Your task to perform on an android device: turn off smart reply in the gmail app Image 0: 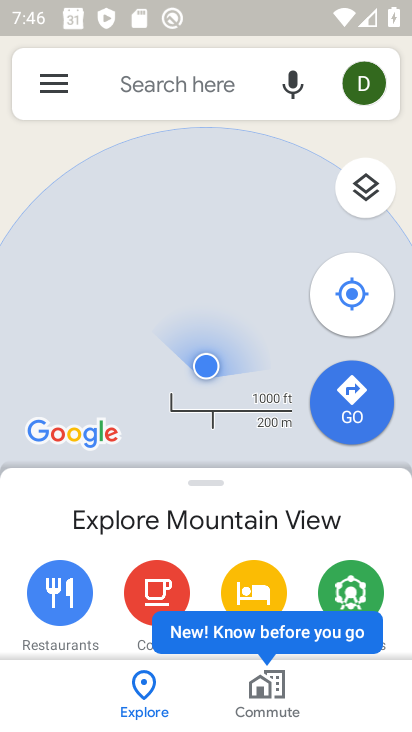
Step 0: press home button
Your task to perform on an android device: turn off smart reply in the gmail app Image 1: 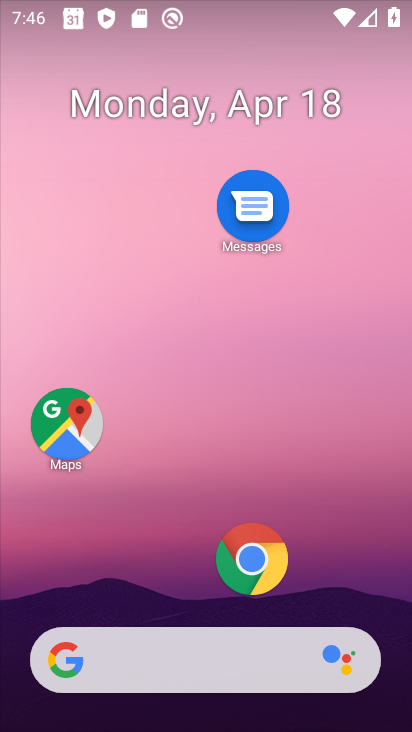
Step 1: drag from (164, 401) to (192, 39)
Your task to perform on an android device: turn off smart reply in the gmail app Image 2: 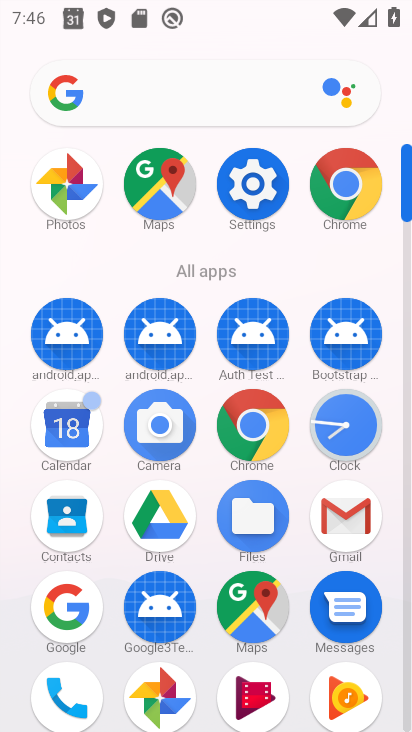
Step 2: click (346, 522)
Your task to perform on an android device: turn off smart reply in the gmail app Image 3: 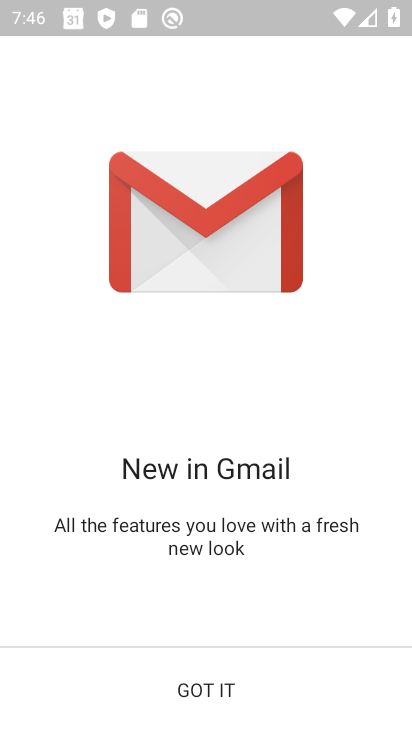
Step 3: click (210, 690)
Your task to perform on an android device: turn off smart reply in the gmail app Image 4: 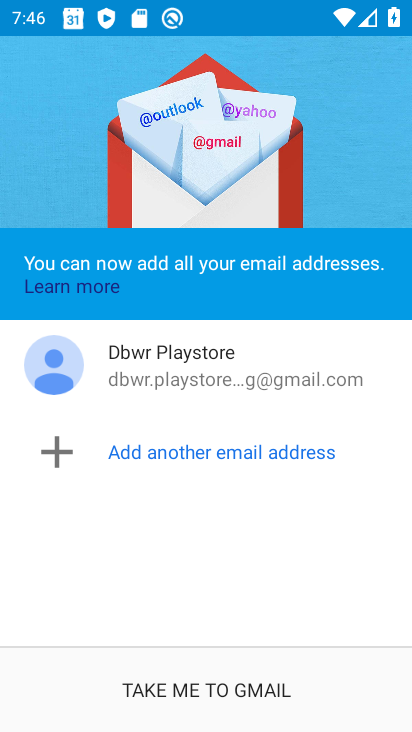
Step 4: click (210, 690)
Your task to perform on an android device: turn off smart reply in the gmail app Image 5: 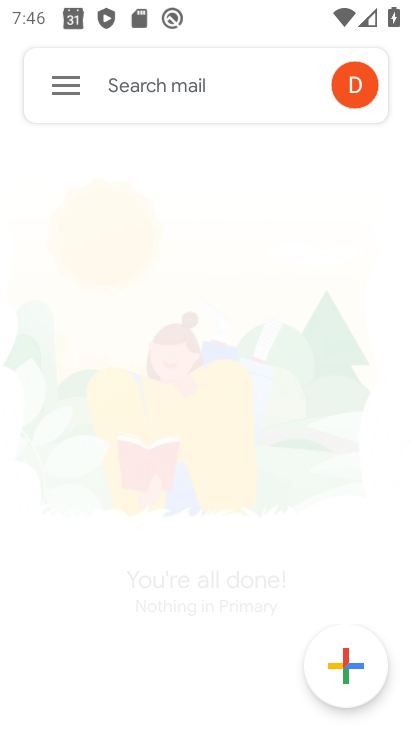
Step 5: click (69, 81)
Your task to perform on an android device: turn off smart reply in the gmail app Image 6: 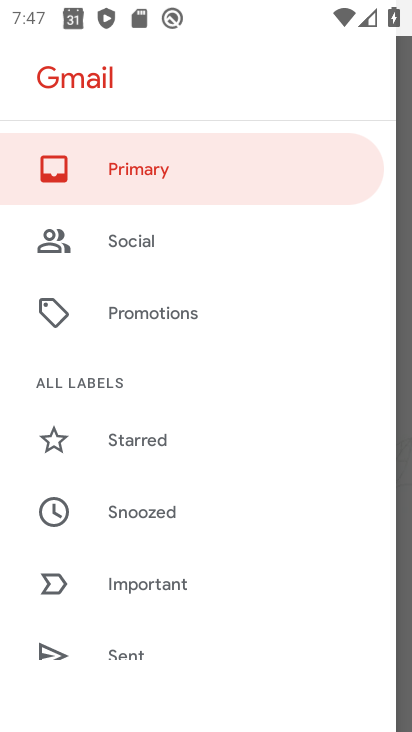
Step 6: drag from (165, 571) to (233, 23)
Your task to perform on an android device: turn off smart reply in the gmail app Image 7: 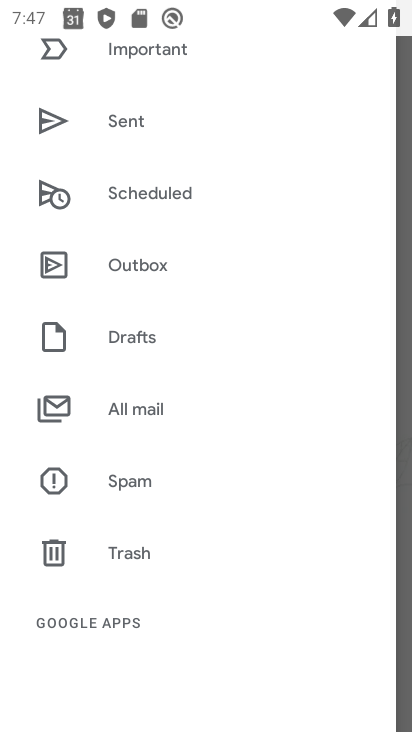
Step 7: drag from (154, 602) to (201, 311)
Your task to perform on an android device: turn off smart reply in the gmail app Image 8: 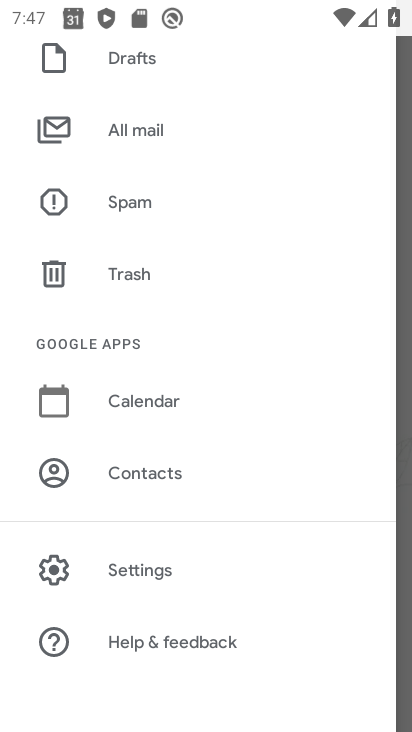
Step 8: click (138, 561)
Your task to perform on an android device: turn off smart reply in the gmail app Image 9: 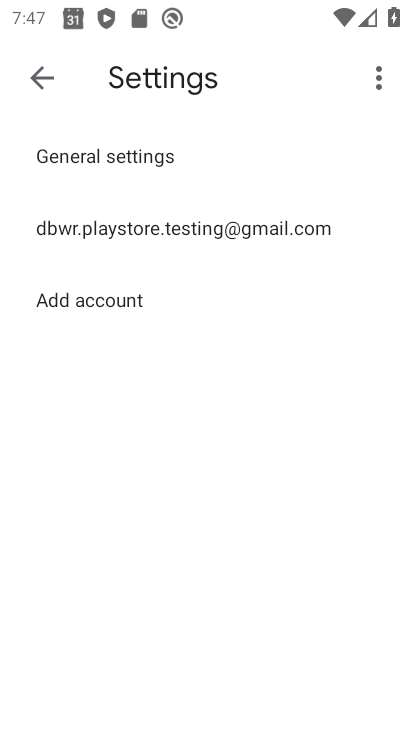
Step 9: click (190, 232)
Your task to perform on an android device: turn off smart reply in the gmail app Image 10: 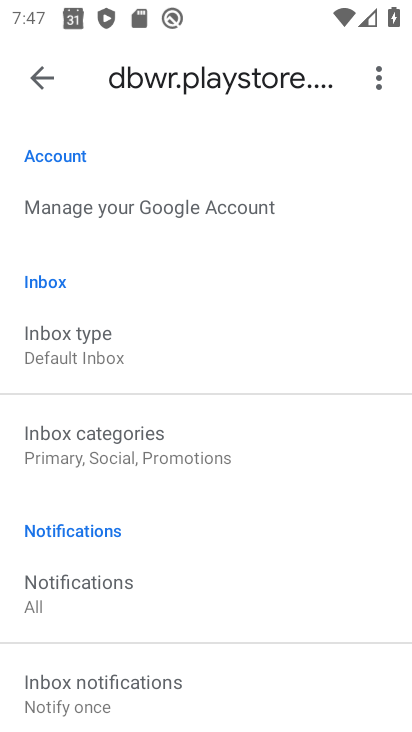
Step 10: drag from (179, 609) to (265, 259)
Your task to perform on an android device: turn off smart reply in the gmail app Image 11: 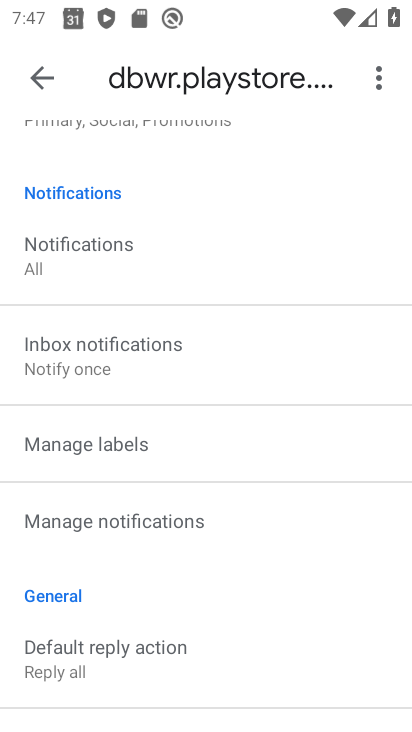
Step 11: drag from (186, 635) to (225, 375)
Your task to perform on an android device: turn off smart reply in the gmail app Image 12: 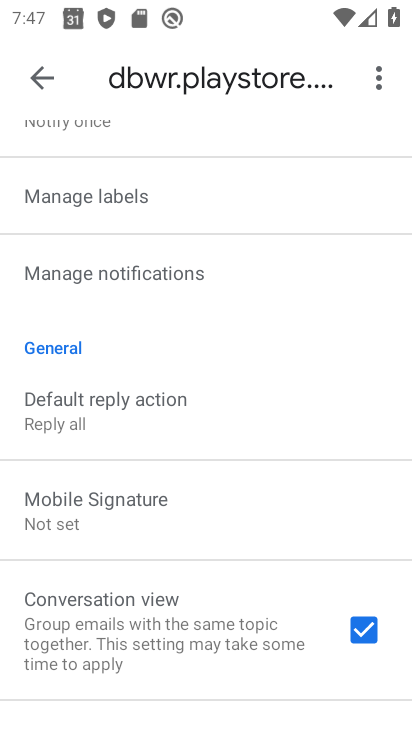
Step 12: drag from (175, 522) to (219, 252)
Your task to perform on an android device: turn off smart reply in the gmail app Image 13: 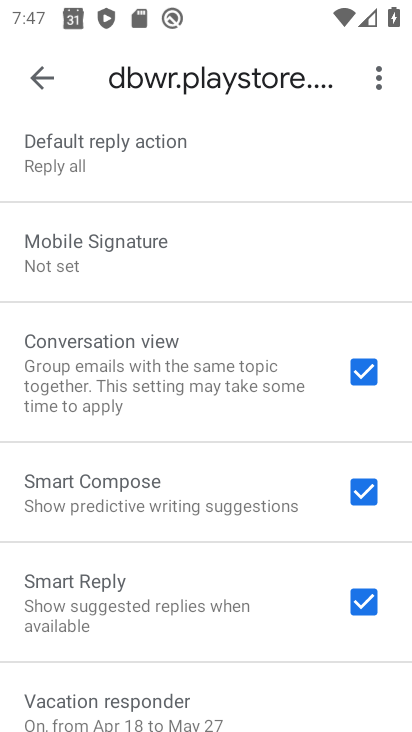
Step 13: click (362, 597)
Your task to perform on an android device: turn off smart reply in the gmail app Image 14: 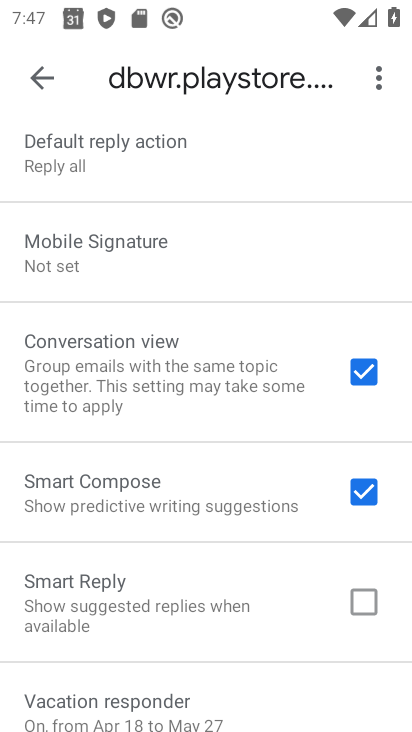
Step 14: task complete